Your task to perform on an android device: check battery use Image 0: 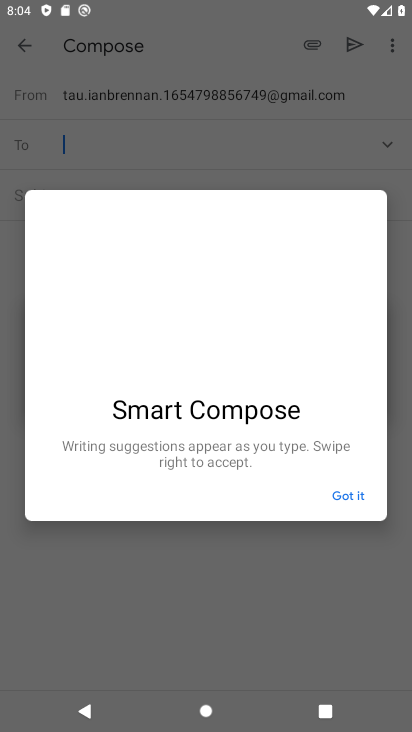
Step 0: press home button
Your task to perform on an android device: check battery use Image 1: 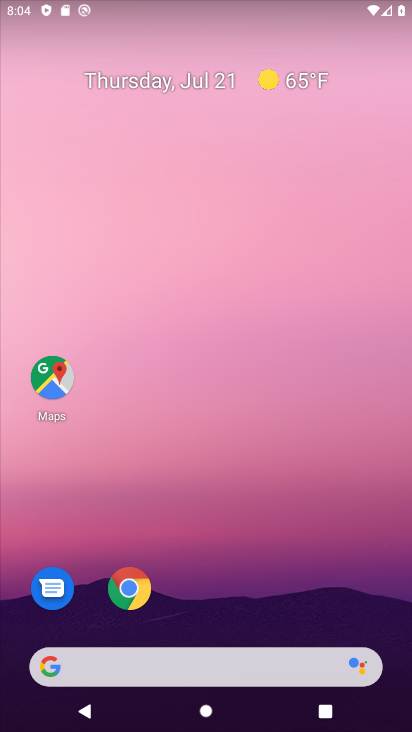
Step 1: drag from (250, 635) to (231, 94)
Your task to perform on an android device: check battery use Image 2: 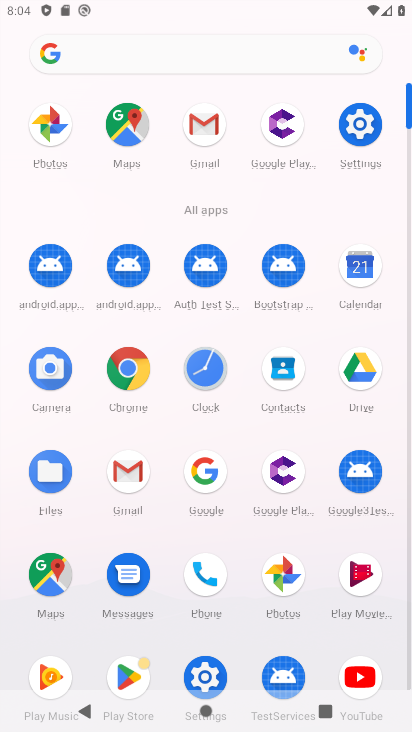
Step 2: click (360, 121)
Your task to perform on an android device: check battery use Image 3: 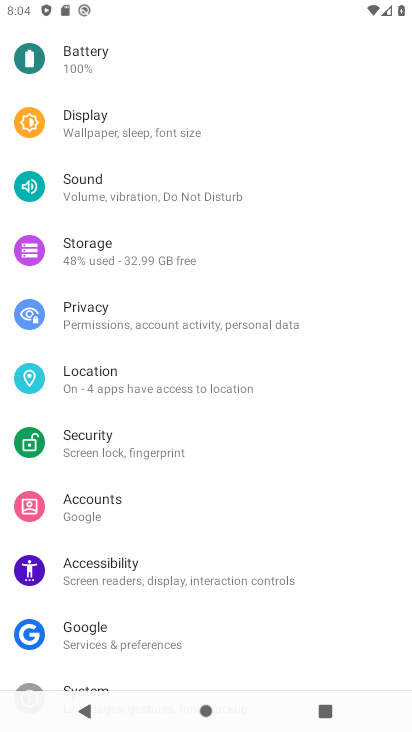
Step 3: click (82, 77)
Your task to perform on an android device: check battery use Image 4: 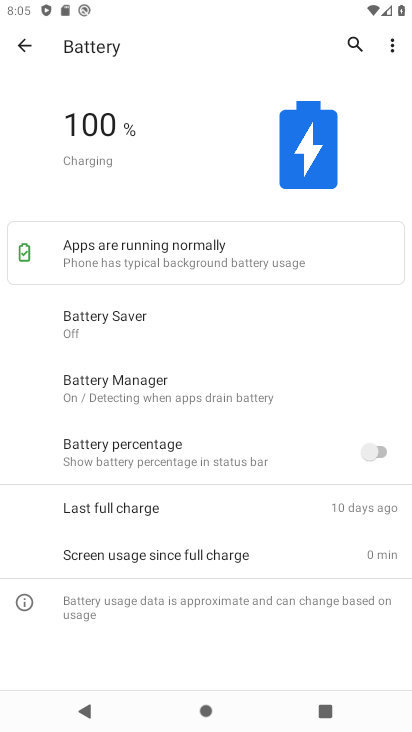
Step 4: task complete